Your task to perform on an android device: check storage Image 0: 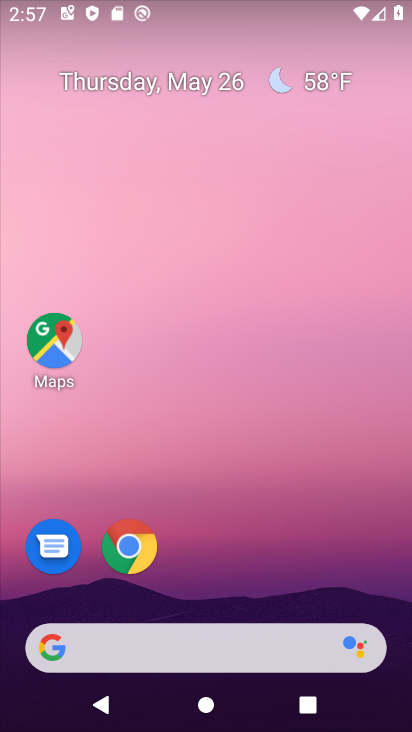
Step 0: drag from (227, 595) to (187, 0)
Your task to perform on an android device: check storage Image 1: 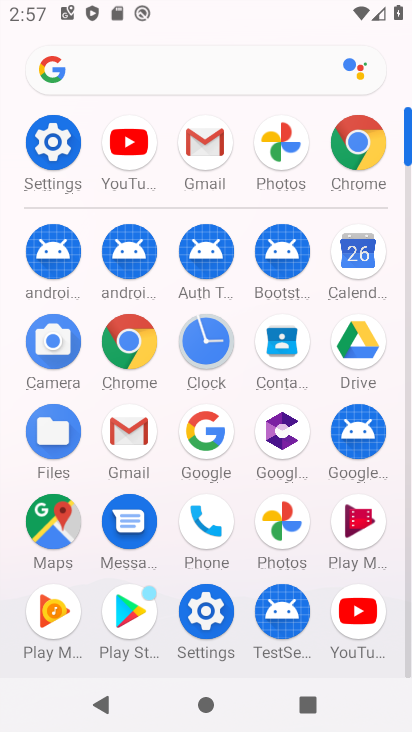
Step 1: click (208, 601)
Your task to perform on an android device: check storage Image 2: 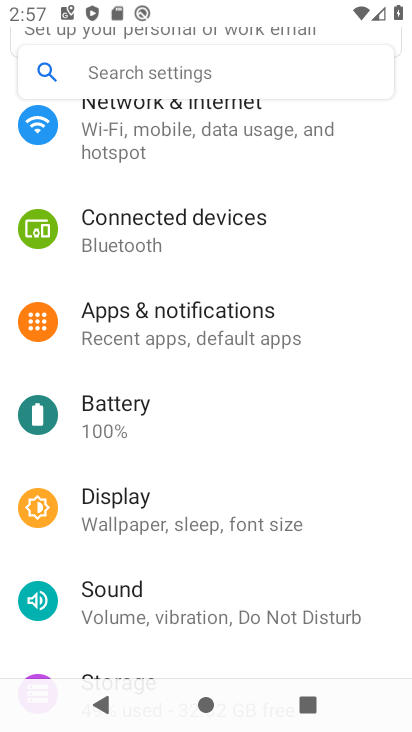
Step 2: drag from (161, 609) to (166, 312)
Your task to perform on an android device: check storage Image 3: 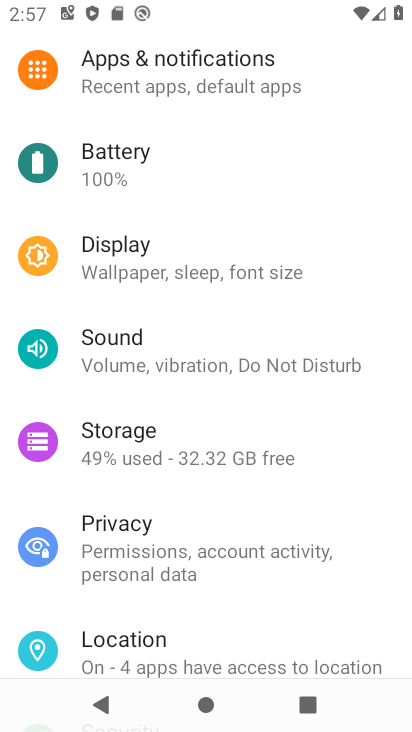
Step 3: click (147, 445)
Your task to perform on an android device: check storage Image 4: 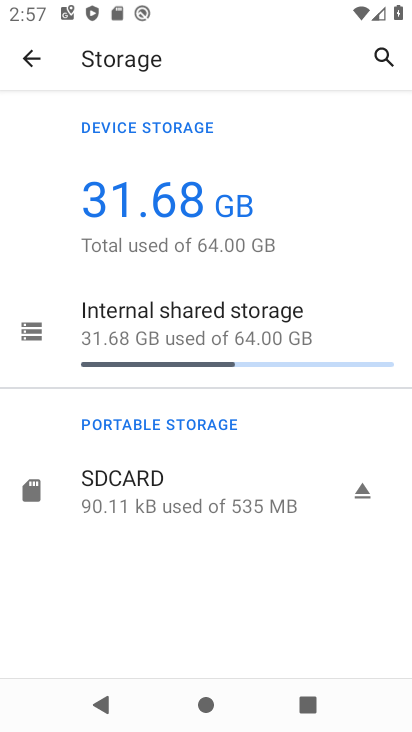
Step 4: task complete